Your task to perform on an android device: check android version Image 0: 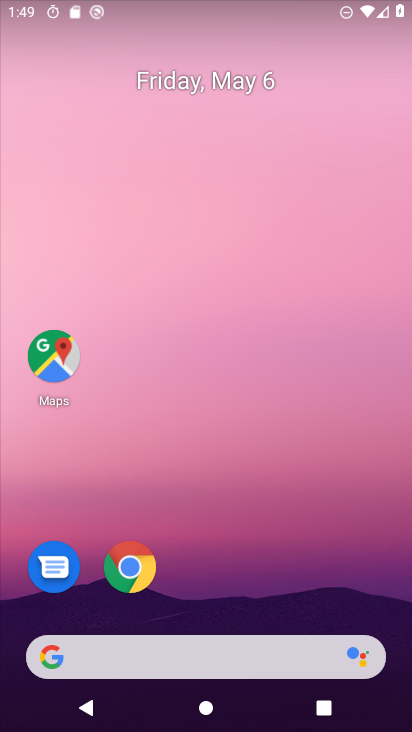
Step 0: drag from (315, 598) to (317, 72)
Your task to perform on an android device: check android version Image 1: 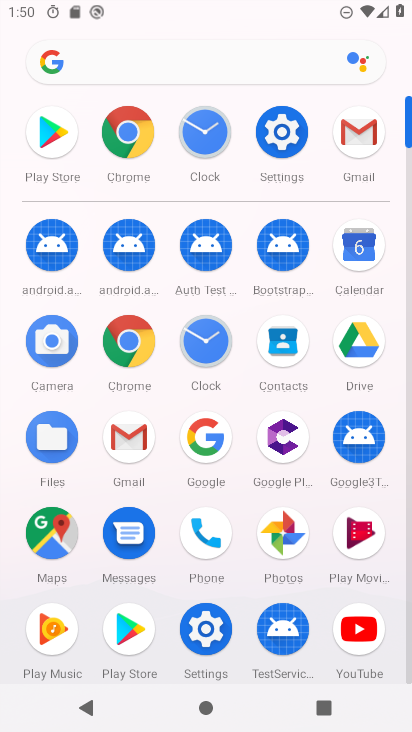
Step 1: click (280, 129)
Your task to perform on an android device: check android version Image 2: 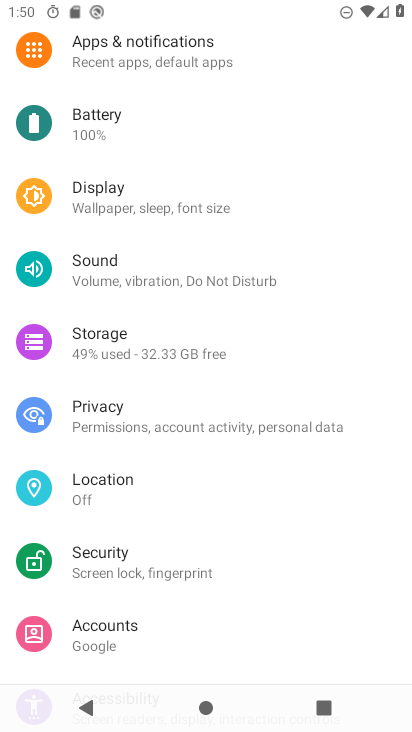
Step 2: drag from (286, 511) to (255, 88)
Your task to perform on an android device: check android version Image 3: 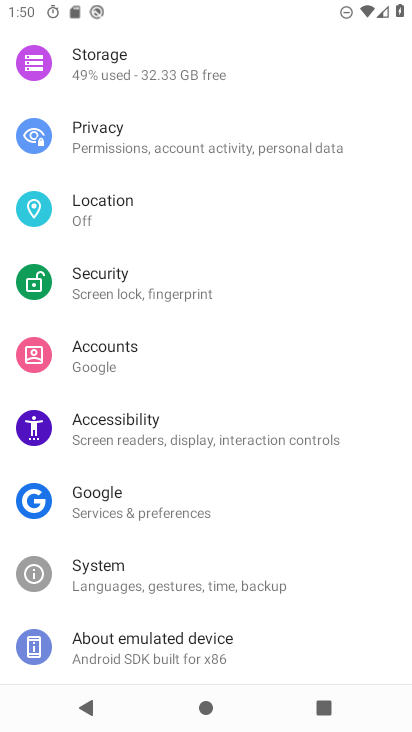
Step 3: click (96, 642)
Your task to perform on an android device: check android version Image 4: 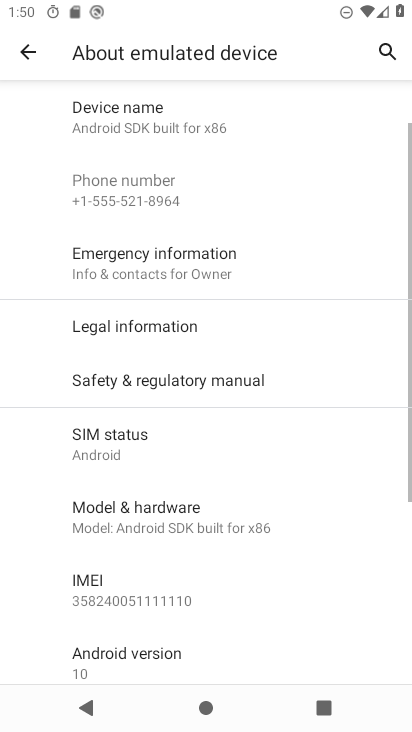
Step 4: click (122, 659)
Your task to perform on an android device: check android version Image 5: 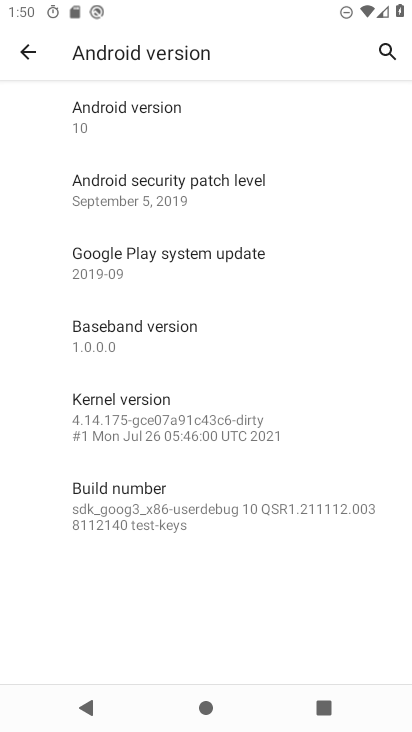
Step 5: task complete